Your task to perform on an android device: Open Android settings Image 0: 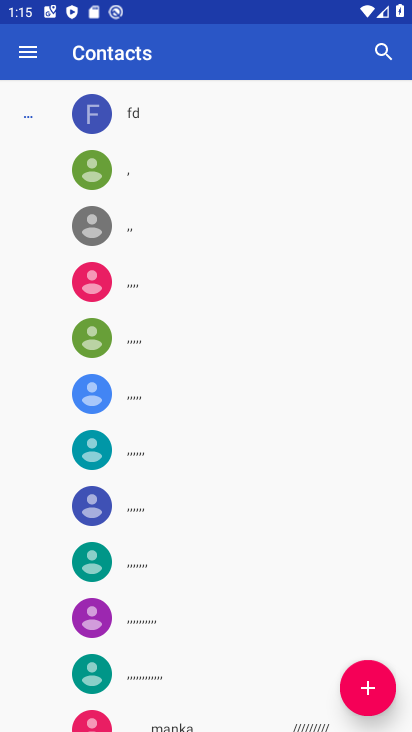
Step 0: press home button
Your task to perform on an android device: Open Android settings Image 1: 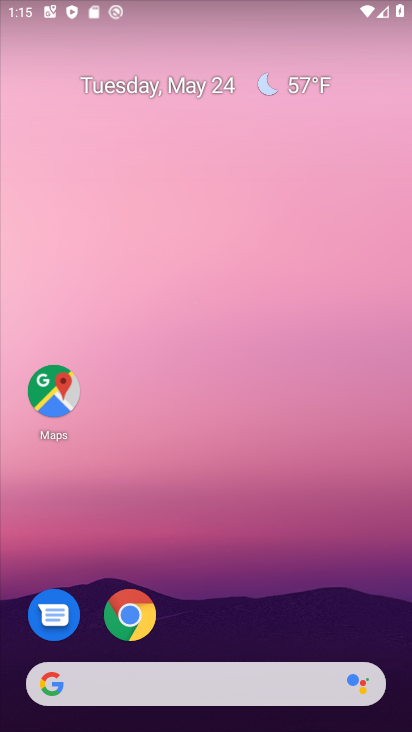
Step 1: drag from (232, 656) to (215, 287)
Your task to perform on an android device: Open Android settings Image 2: 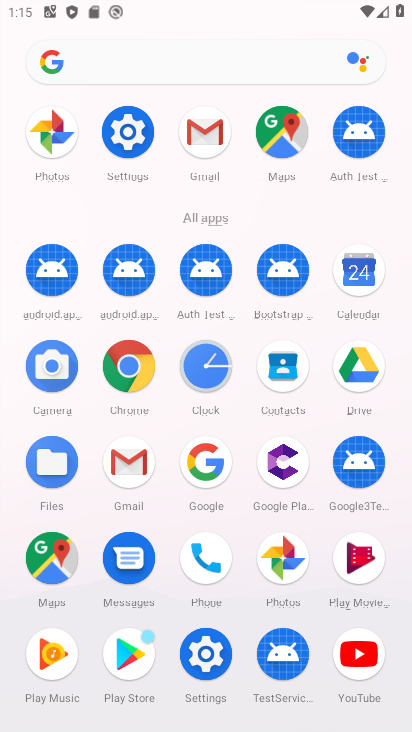
Step 2: click (195, 657)
Your task to perform on an android device: Open Android settings Image 3: 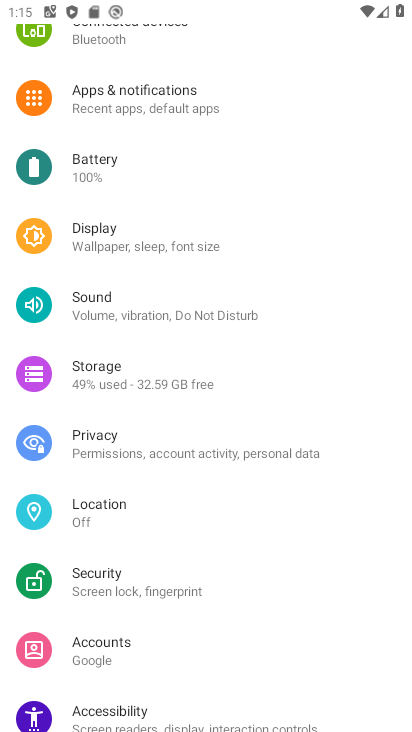
Step 3: task complete